Your task to perform on an android device: Set the phone to "Do not disturb". Image 0: 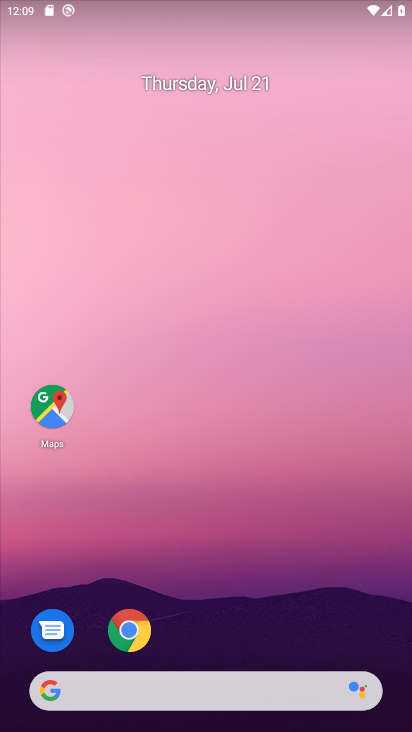
Step 0: drag from (166, 654) to (225, 283)
Your task to perform on an android device: Set the phone to "Do not disturb". Image 1: 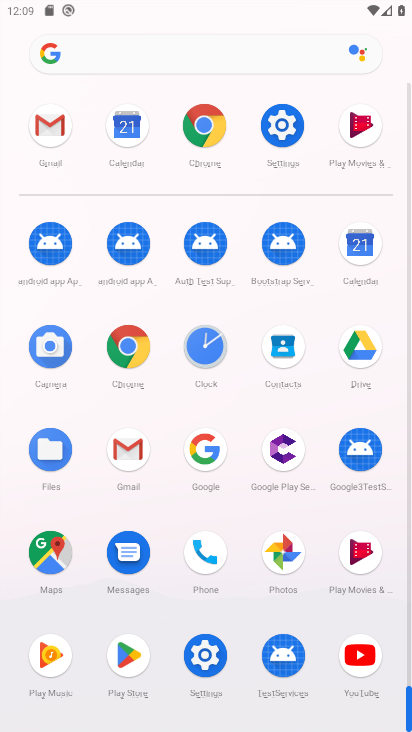
Step 1: click (192, 657)
Your task to perform on an android device: Set the phone to "Do not disturb". Image 2: 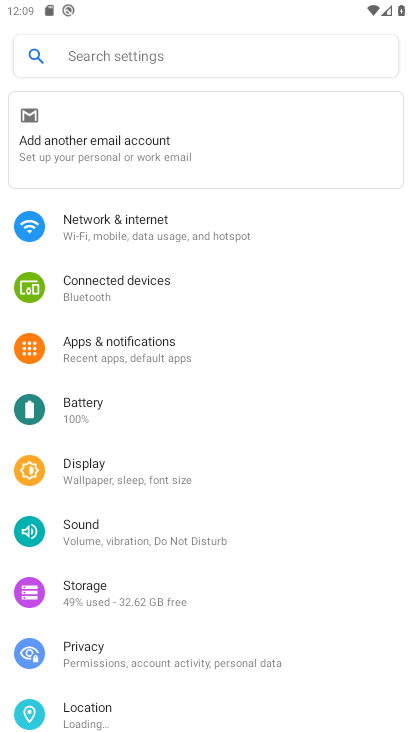
Step 2: drag from (166, 558) to (206, 285)
Your task to perform on an android device: Set the phone to "Do not disturb". Image 3: 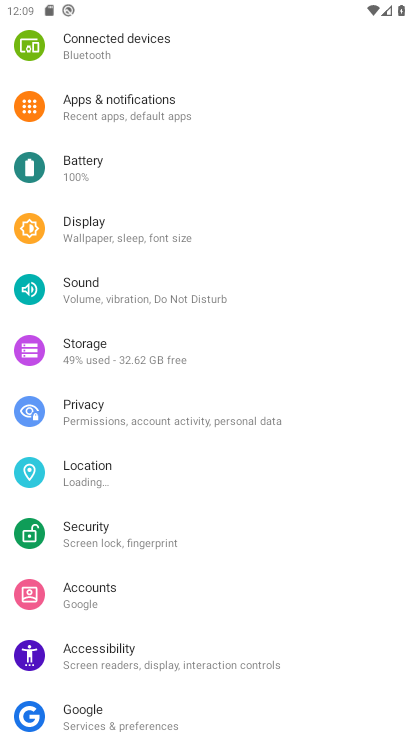
Step 3: drag from (174, 106) to (216, 587)
Your task to perform on an android device: Set the phone to "Do not disturb". Image 4: 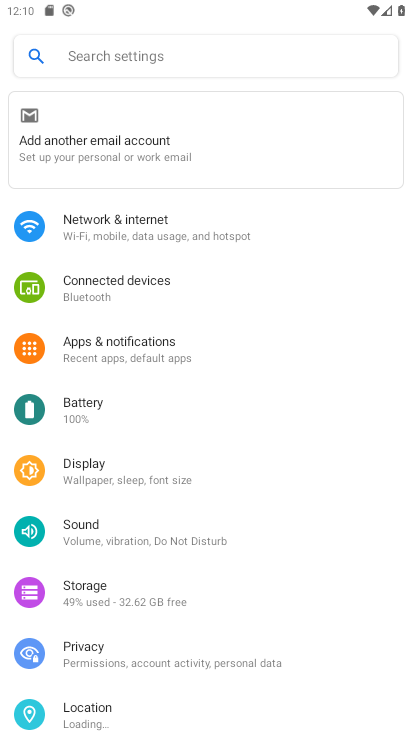
Step 4: click (126, 363)
Your task to perform on an android device: Set the phone to "Do not disturb". Image 5: 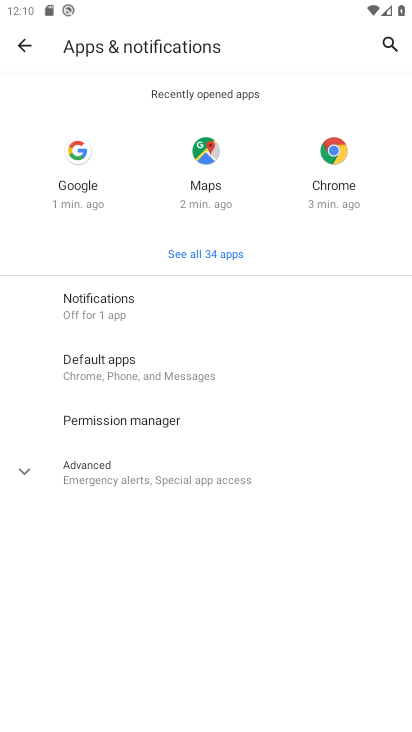
Step 5: click (123, 296)
Your task to perform on an android device: Set the phone to "Do not disturb". Image 6: 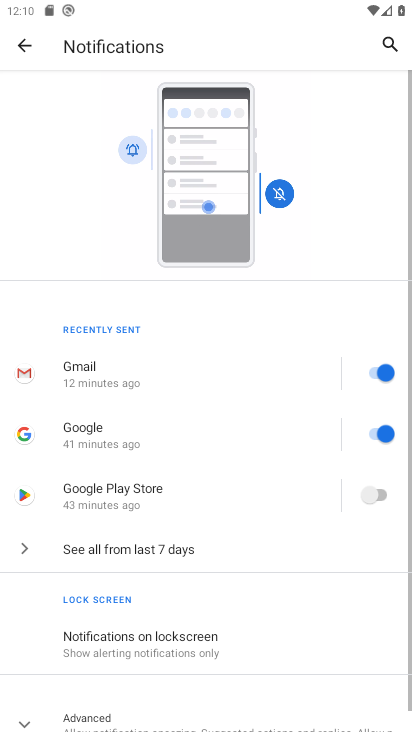
Step 6: drag from (203, 563) to (279, 80)
Your task to perform on an android device: Set the phone to "Do not disturb". Image 7: 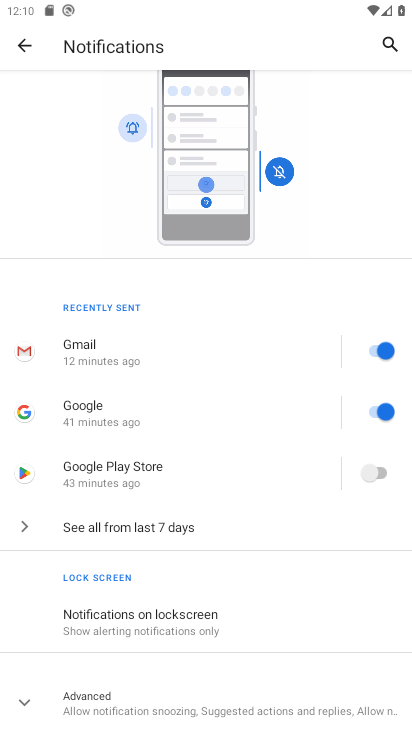
Step 7: click (138, 685)
Your task to perform on an android device: Set the phone to "Do not disturb". Image 8: 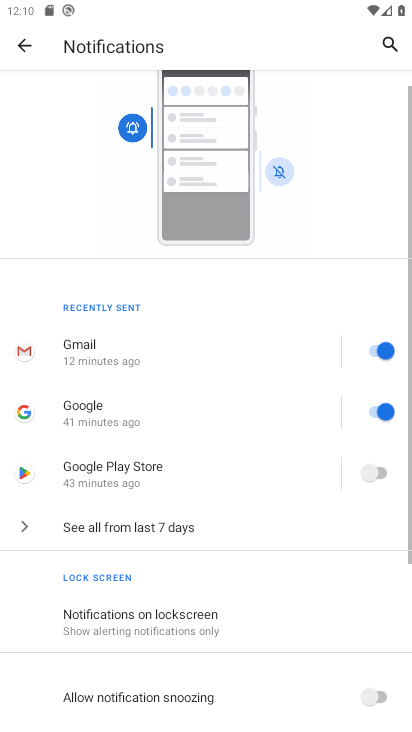
Step 8: drag from (175, 647) to (317, 162)
Your task to perform on an android device: Set the phone to "Do not disturb". Image 9: 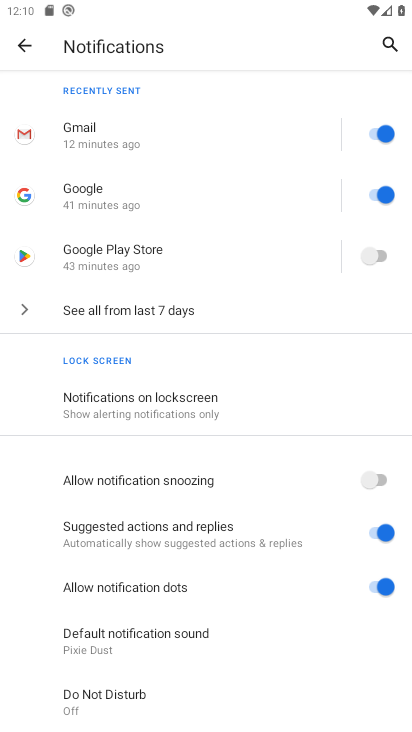
Step 9: click (102, 690)
Your task to perform on an android device: Set the phone to "Do not disturb". Image 10: 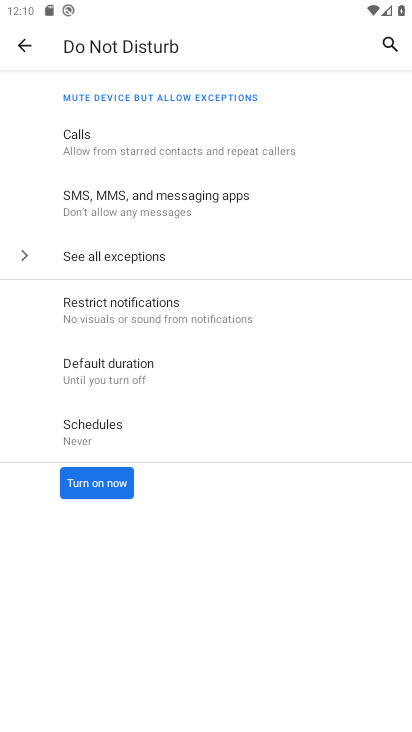
Step 10: click (95, 501)
Your task to perform on an android device: Set the phone to "Do not disturb". Image 11: 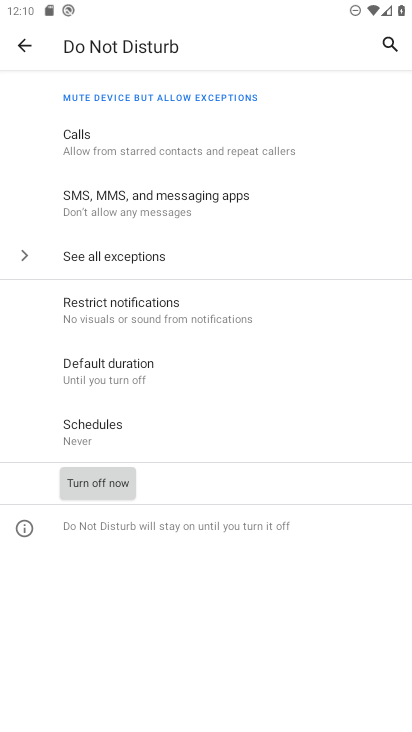
Step 11: task complete